Your task to perform on an android device: see creations saved in the google photos Image 0: 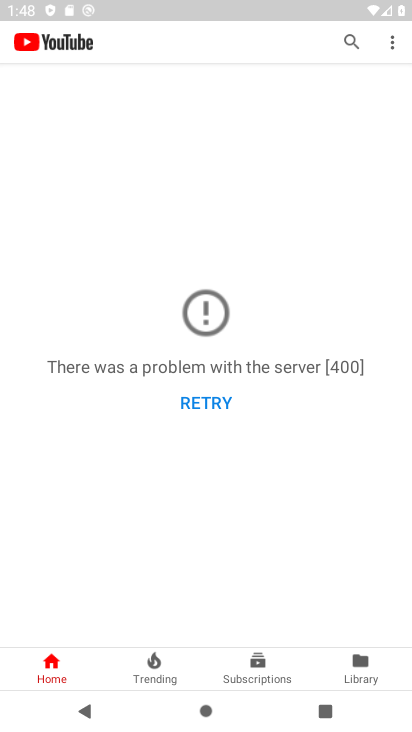
Step 0: press home button
Your task to perform on an android device: see creations saved in the google photos Image 1: 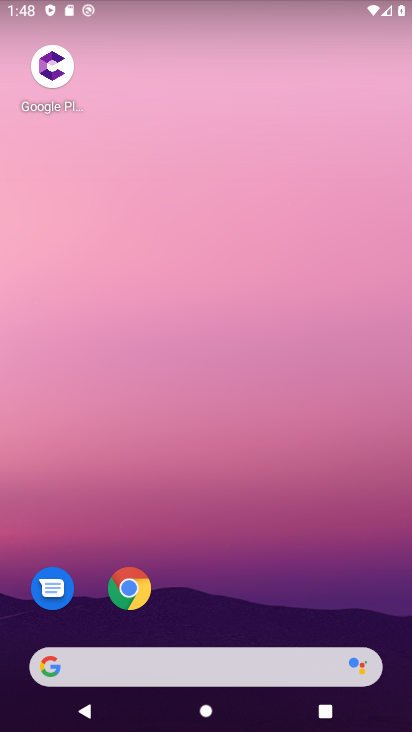
Step 1: drag from (246, 594) to (227, 74)
Your task to perform on an android device: see creations saved in the google photos Image 2: 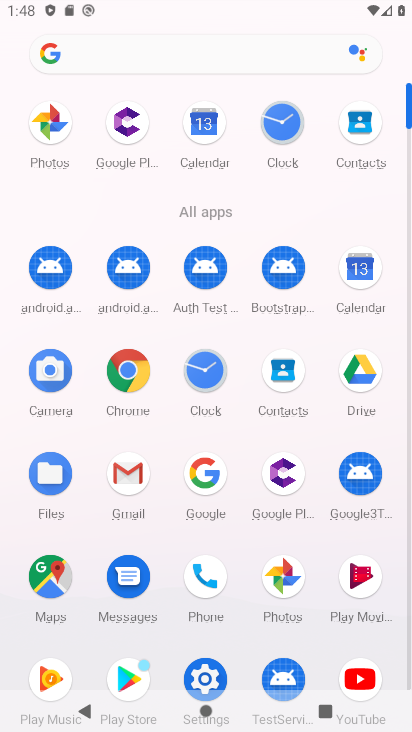
Step 2: drag from (308, 235) to (306, 44)
Your task to perform on an android device: see creations saved in the google photos Image 3: 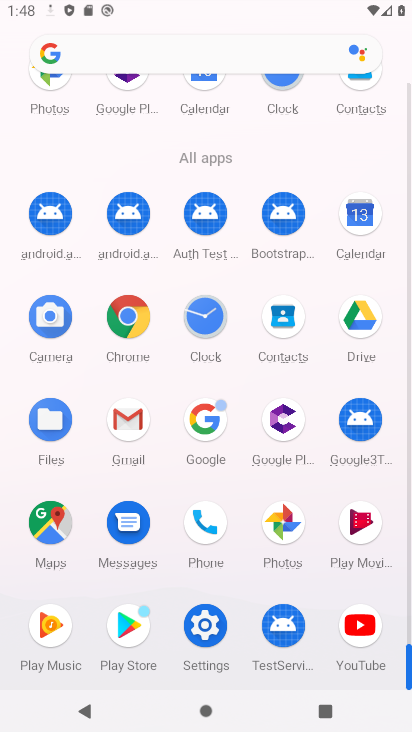
Step 3: click (280, 525)
Your task to perform on an android device: see creations saved in the google photos Image 4: 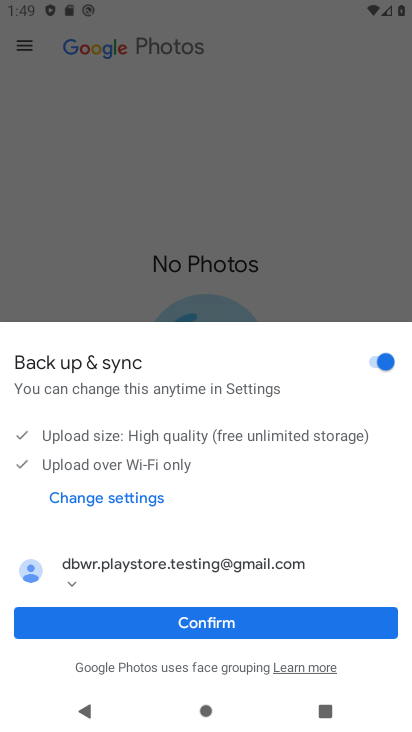
Step 4: click (243, 622)
Your task to perform on an android device: see creations saved in the google photos Image 5: 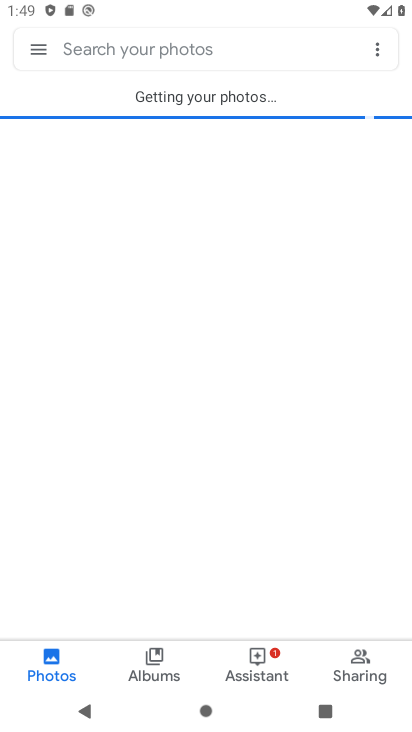
Step 5: click (120, 53)
Your task to perform on an android device: see creations saved in the google photos Image 6: 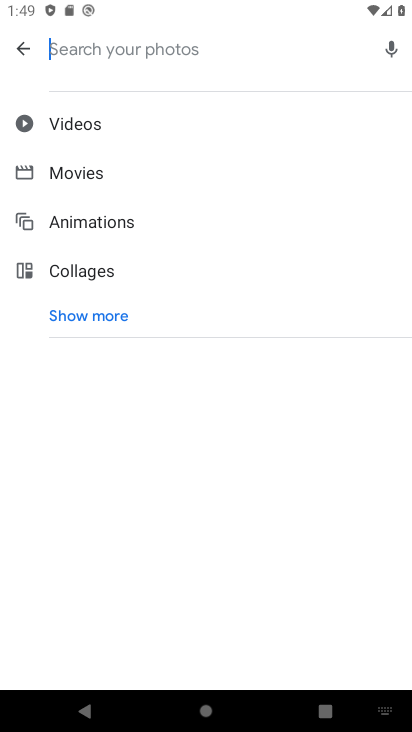
Step 6: click (88, 314)
Your task to perform on an android device: see creations saved in the google photos Image 7: 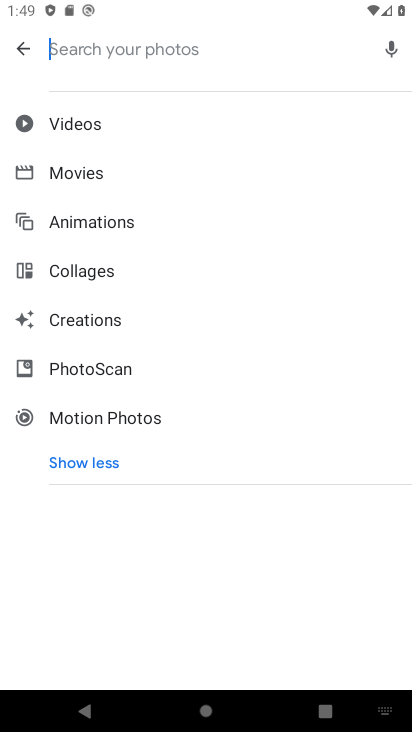
Step 7: click (96, 321)
Your task to perform on an android device: see creations saved in the google photos Image 8: 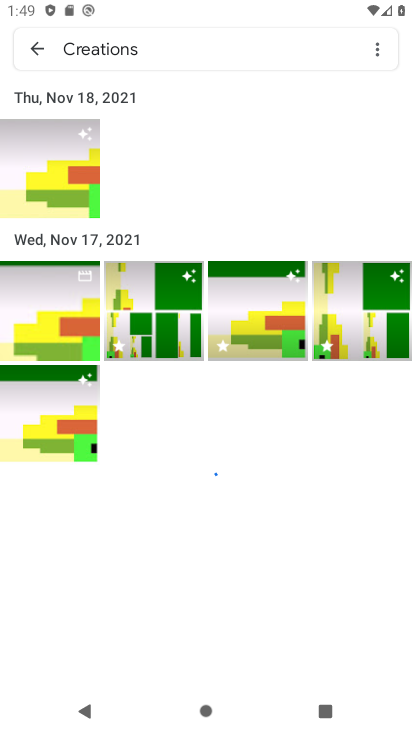
Step 8: task complete